Your task to perform on an android device: Search for top rated sushi restaurants on Maps Image 0: 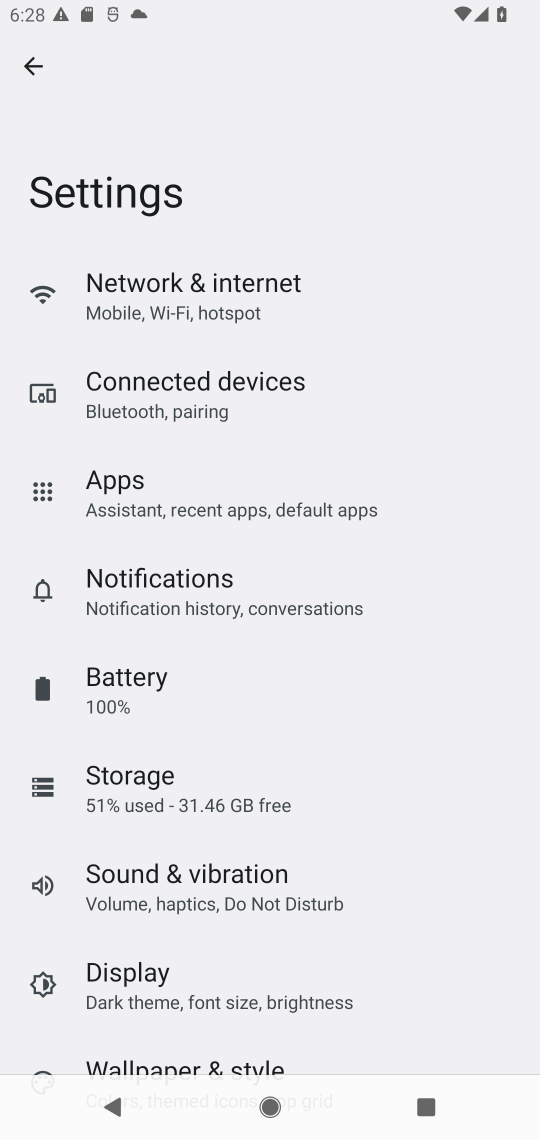
Step 0: press home button
Your task to perform on an android device: Search for top rated sushi restaurants on Maps Image 1: 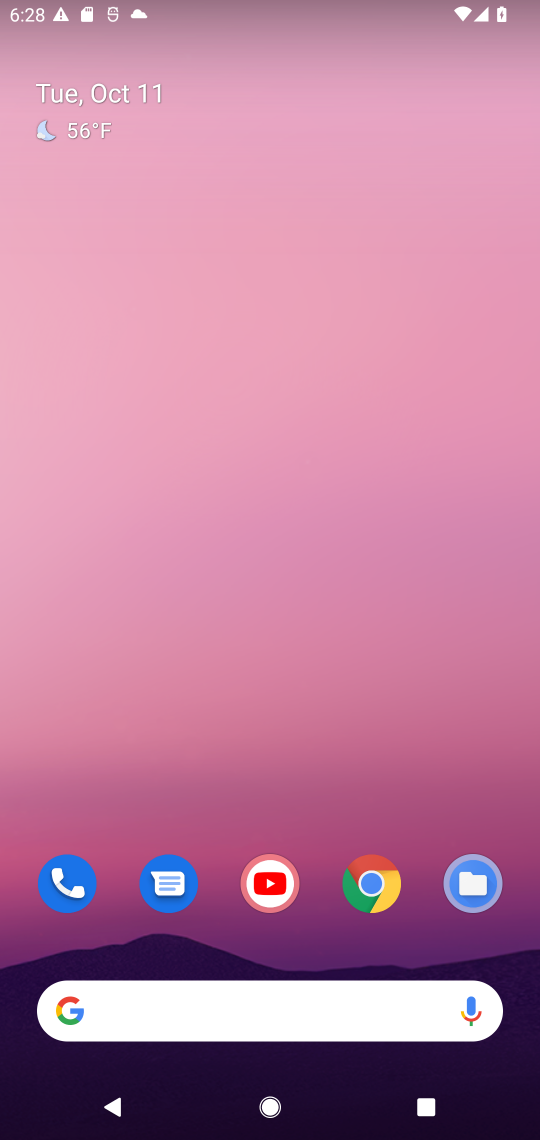
Step 1: drag from (331, 862) to (325, 28)
Your task to perform on an android device: Search for top rated sushi restaurants on Maps Image 2: 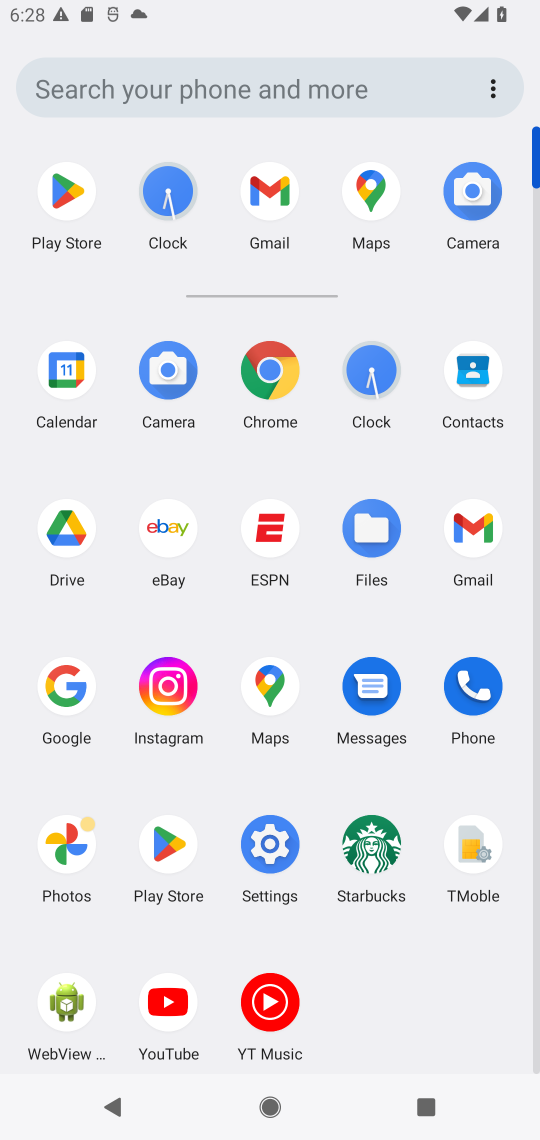
Step 2: click (261, 680)
Your task to perform on an android device: Search for top rated sushi restaurants on Maps Image 3: 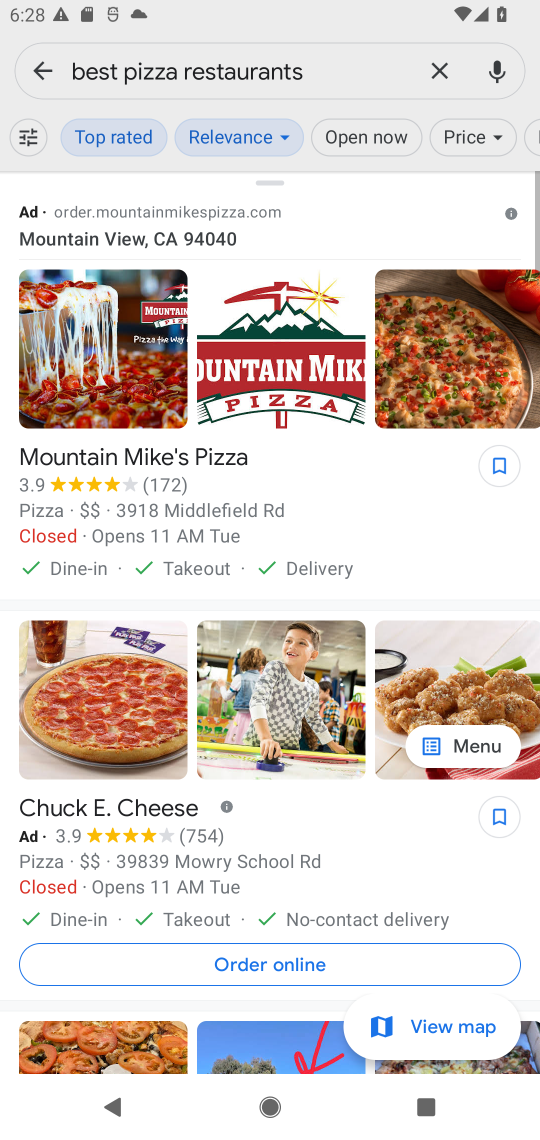
Step 3: click (231, 72)
Your task to perform on an android device: Search for top rated sushi restaurants on Maps Image 4: 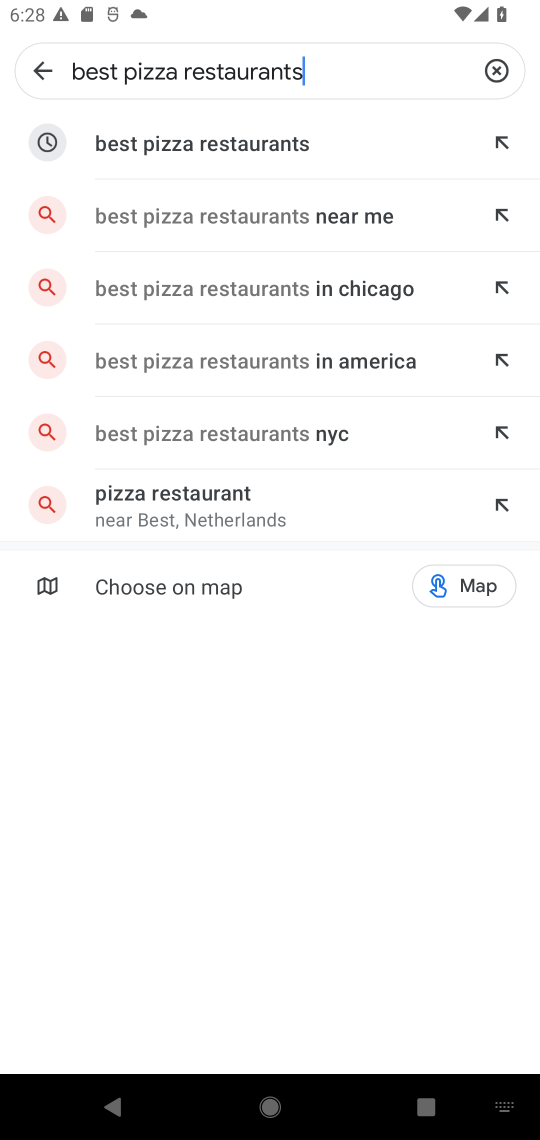
Step 4: click (495, 61)
Your task to perform on an android device: Search for top rated sushi restaurants on Maps Image 5: 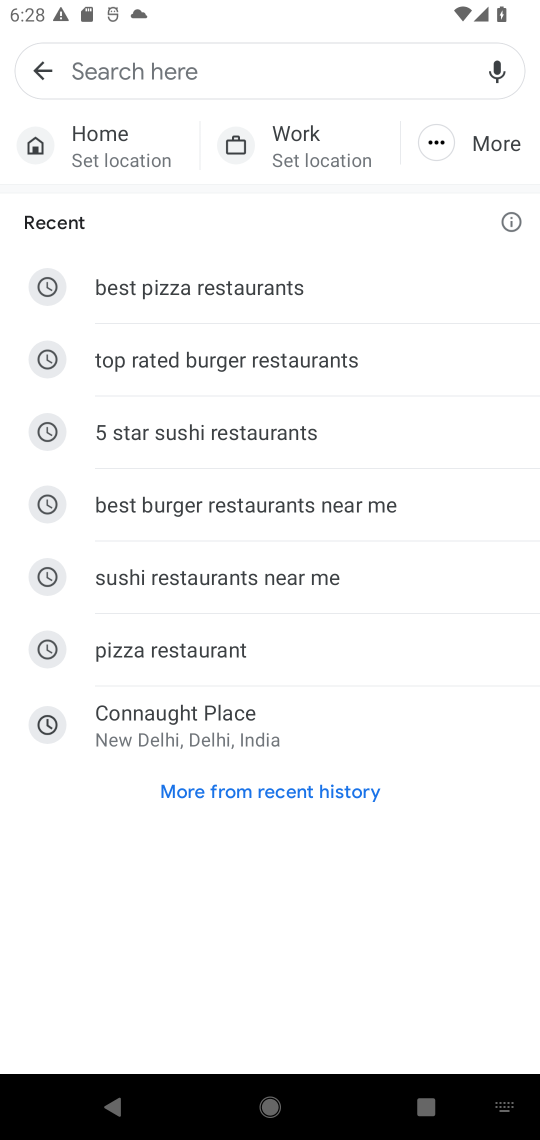
Step 5: type "top rated sushi restaurants"
Your task to perform on an android device: Search for top rated sushi restaurants on Maps Image 6: 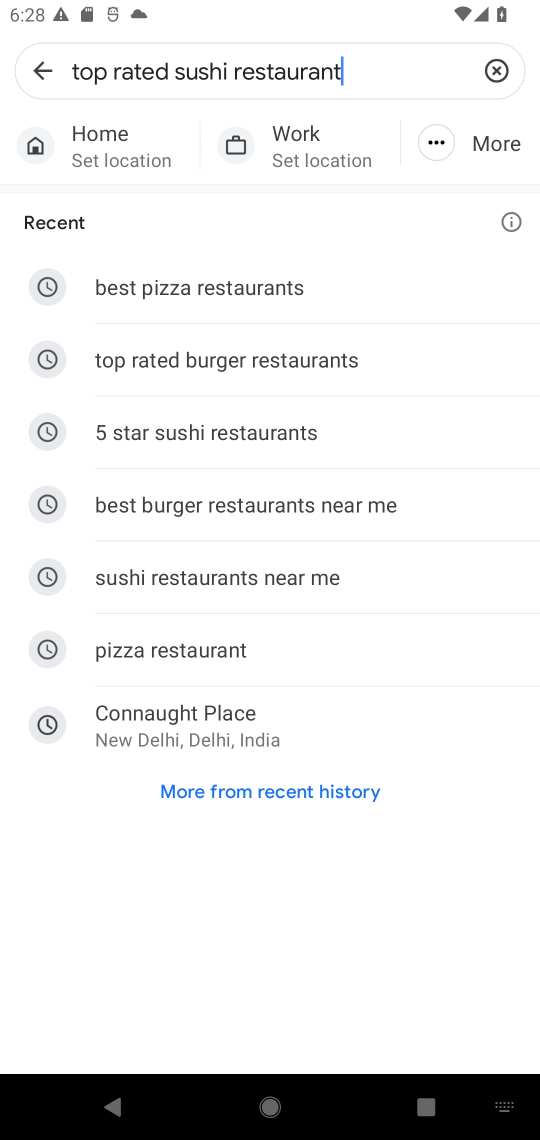
Step 6: press enter
Your task to perform on an android device: Search for top rated sushi restaurants on Maps Image 7: 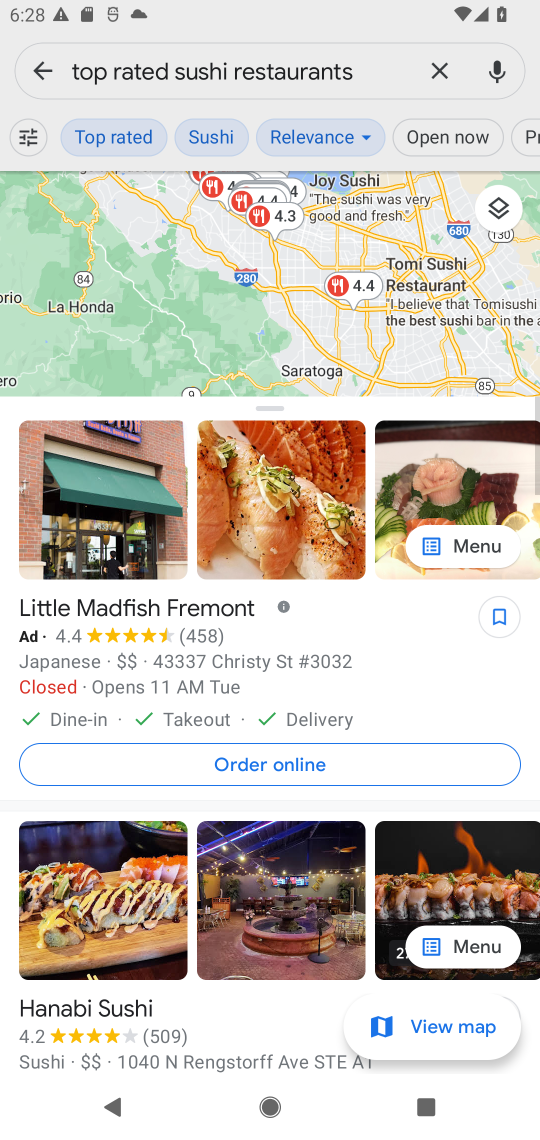
Step 7: task complete